Your task to perform on an android device: Open internet settings Image 0: 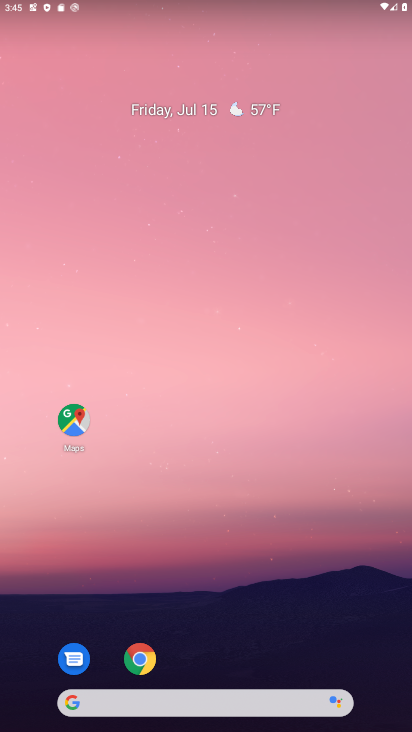
Step 0: drag from (200, 689) to (182, 287)
Your task to perform on an android device: Open internet settings Image 1: 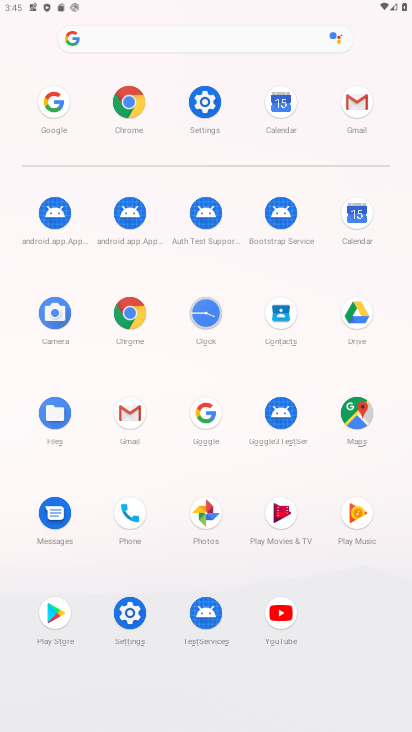
Step 1: click (209, 104)
Your task to perform on an android device: Open internet settings Image 2: 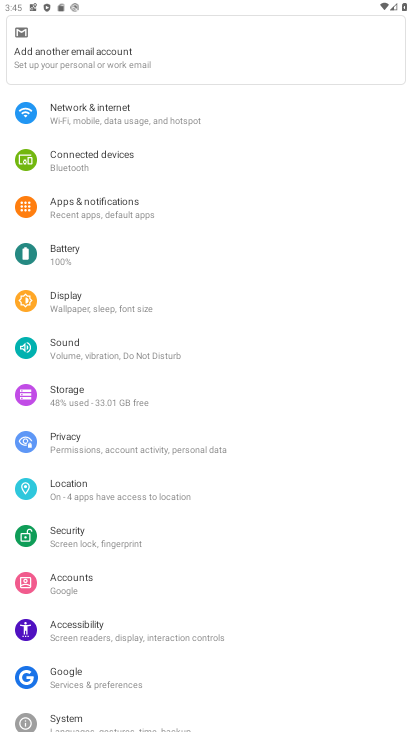
Step 2: click (147, 128)
Your task to perform on an android device: Open internet settings Image 3: 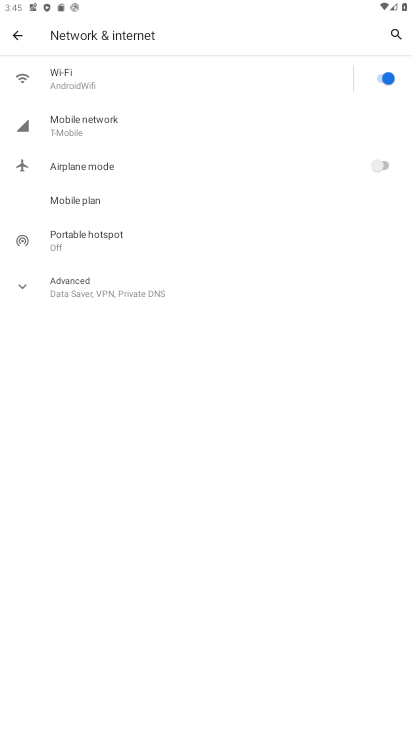
Step 3: click (135, 289)
Your task to perform on an android device: Open internet settings Image 4: 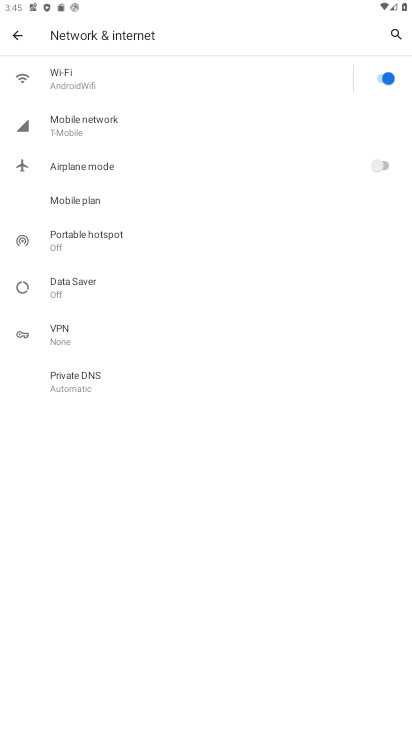
Step 4: task complete